Your task to perform on an android device: manage bookmarks in the chrome app Image 0: 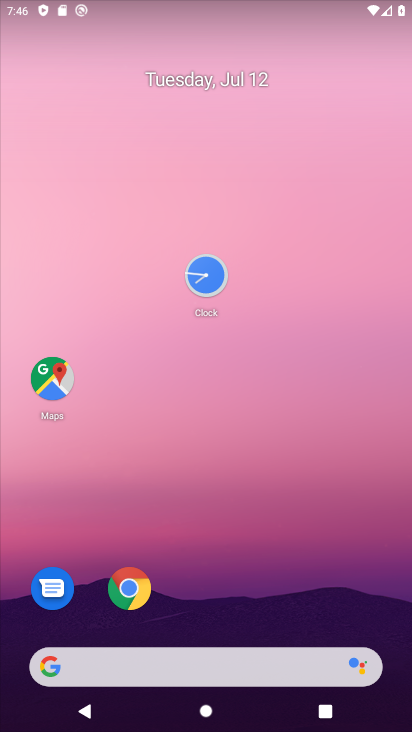
Step 0: drag from (371, 628) to (279, 214)
Your task to perform on an android device: manage bookmarks in the chrome app Image 1: 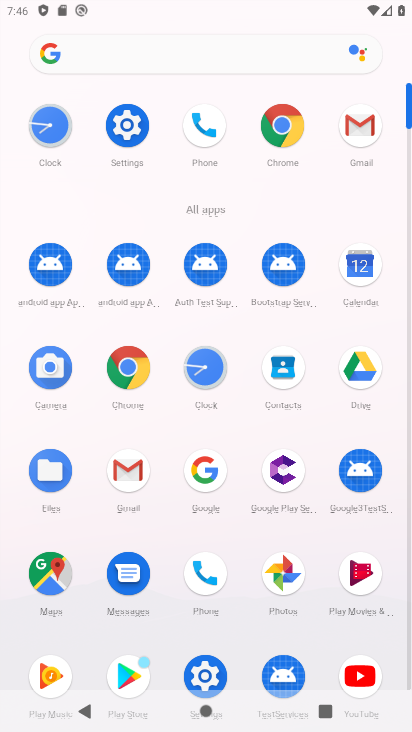
Step 1: click (275, 128)
Your task to perform on an android device: manage bookmarks in the chrome app Image 2: 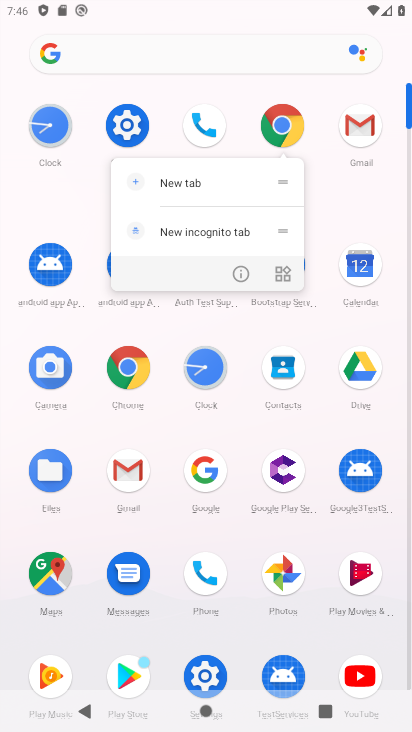
Step 2: click (285, 139)
Your task to perform on an android device: manage bookmarks in the chrome app Image 3: 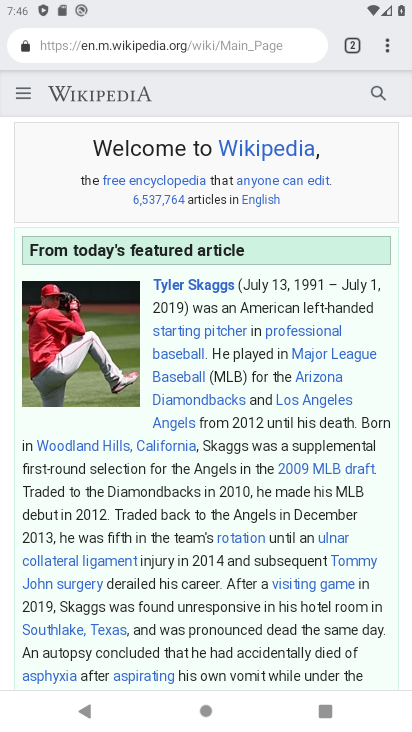
Step 3: drag from (388, 54) to (261, 177)
Your task to perform on an android device: manage bookmarks in the chrome app Image 4: 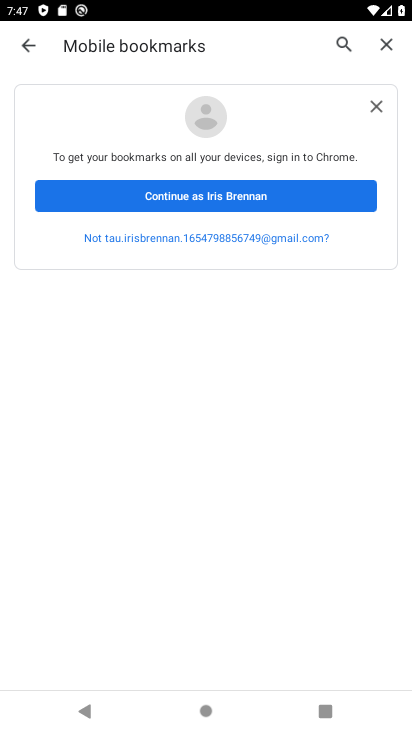
Step 4: click (268, 194)
Your task to perform on an android device: manage bookmarks in the chrome app Image 5: 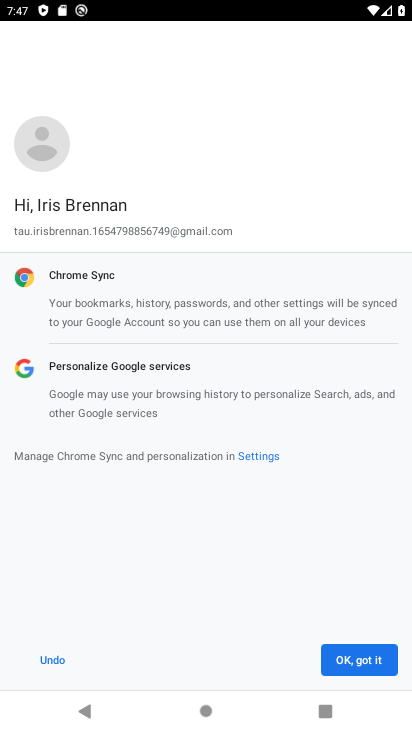
Step 5: click (365, 652)
Your task to perform on an android device: manage bookmarks in the chrome app Image 6: 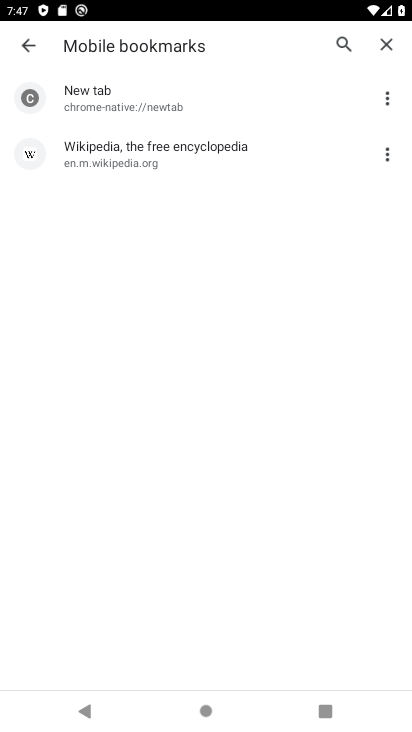
Step 6: click (389, 152)
Your task to perform on an android device: manage bookmarks in the chrome app Image 7: 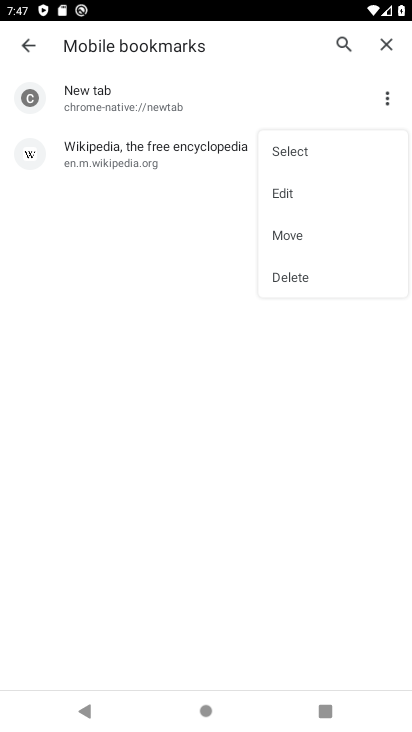
Step 7: click (313, 285)
Your task to perform on an android device: manage bookmarks in the chrome app Image 8: 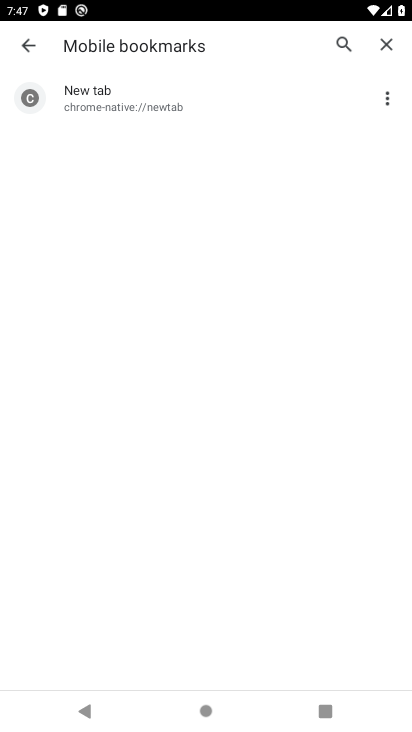
Step 8: task complete